Your task to perform on an android device: toggle notifications settings in the gmail app Image 0: 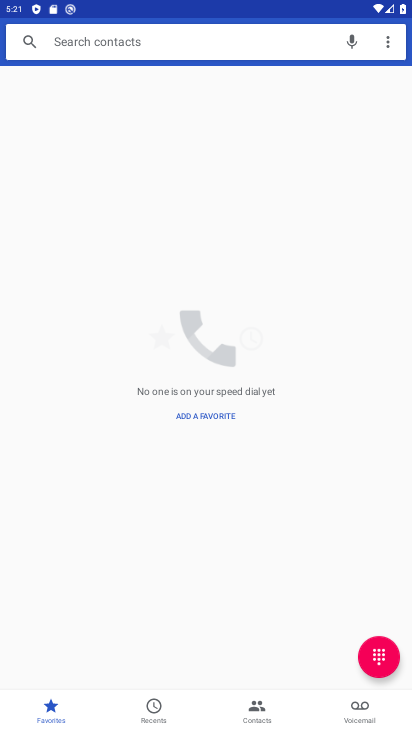
Step 0: press home button
Your task to perform on an android device: toggle notifications settings in the gmail app Image 1: 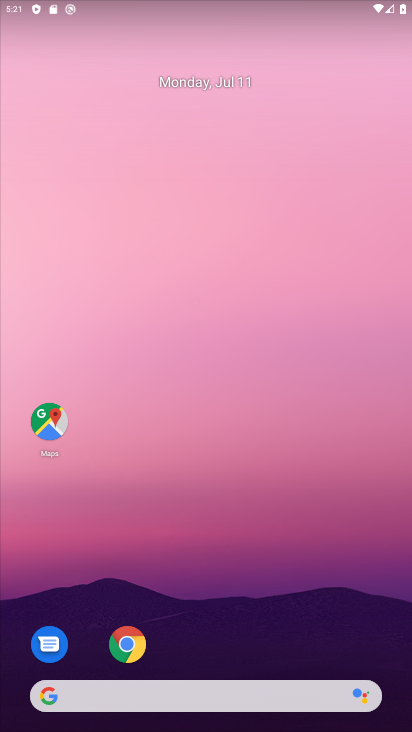
Step 1: drag from (268, 699) to (270, 9)
Your task to perform on an android device: toggle notifications settings in the gmail app Image 2: 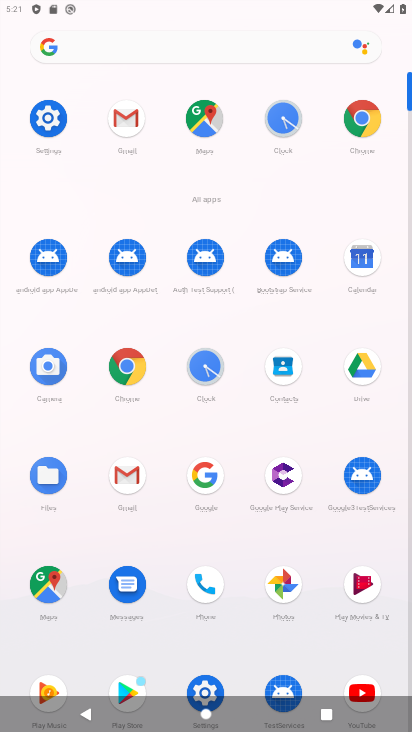
Step 2: click (135, 469)
Your task to perform on an android device: toggle notifications settings in the gmail app Image 3: 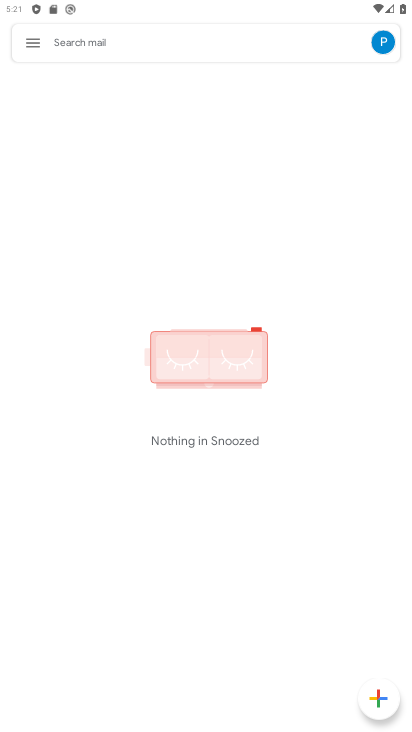
Step 3: click (33, 39)
Your task to perform on an android device: toggle notifications settings in the gmail app Image 4: 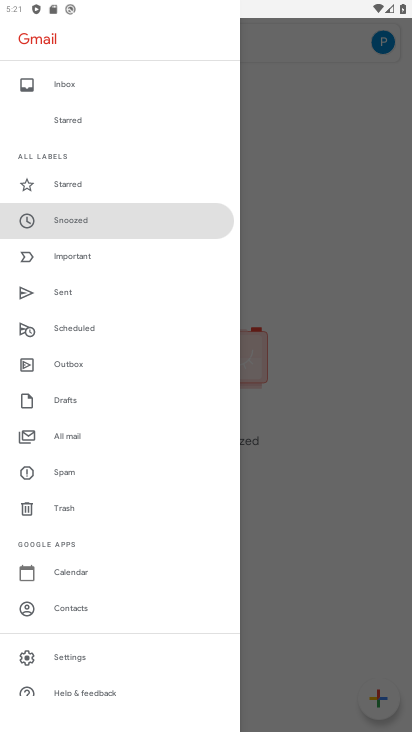
Step 4: click (99, 664)
Your task to perform on an android device: toggle notifications settings in the gmail app Image 5: 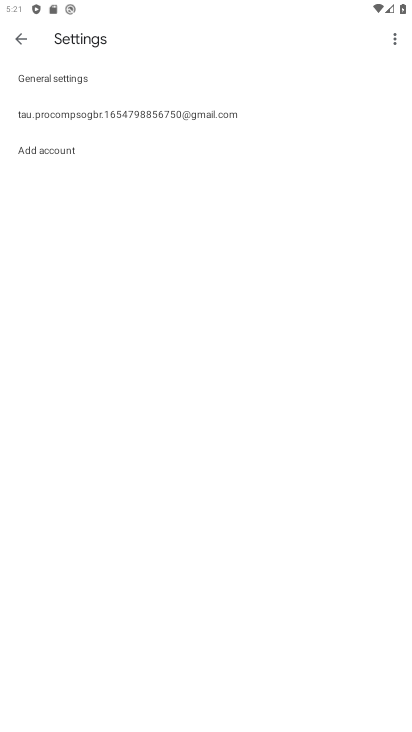
Step 5: click (113, 112)
Your task to perform on an android device: toggle notifications settings in the gmail app Image 6: 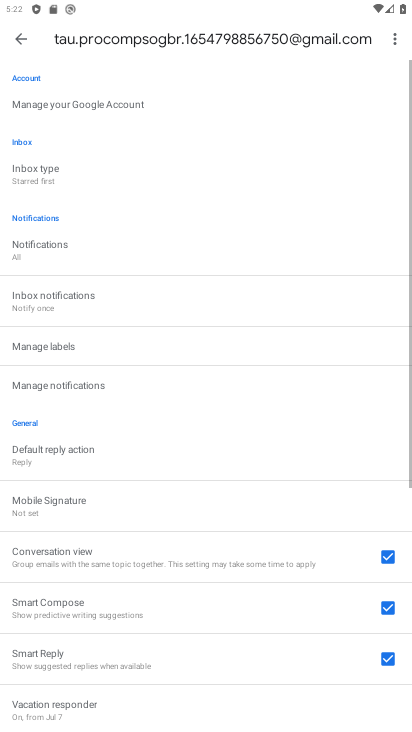
Step 6: click (88, 386)
Your task to perform on an android device: toggle notifications settings in the gmail app Image 7: 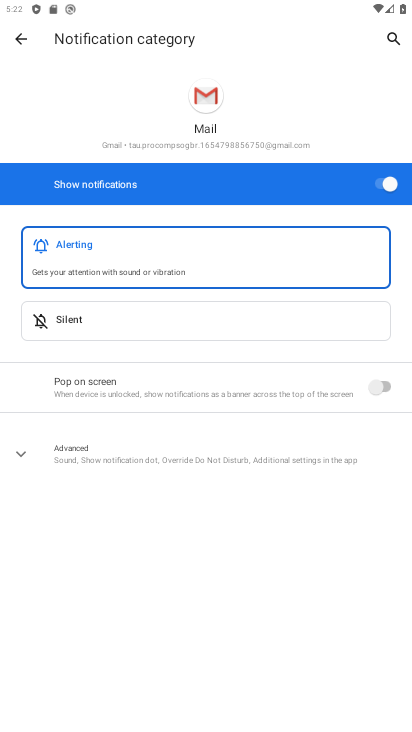
Step 7: click (388, 188)
Your task to perform on an android device: toggle notifications settings in the gmail app Image 8: 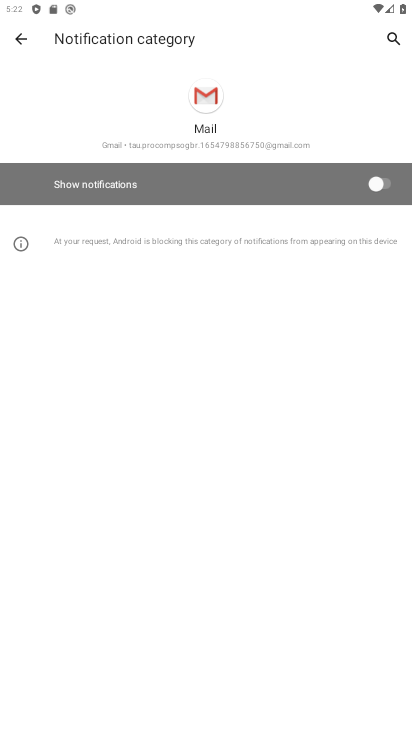
Step 8: task complete